Your task to perform on an android device: What's the weather today? Image 0: 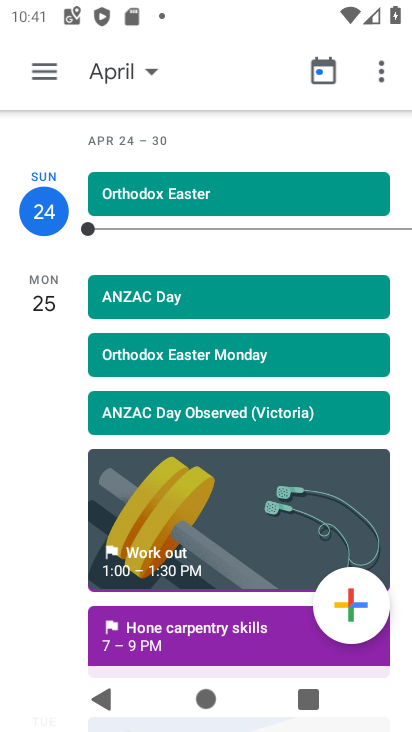
Step 0: press home button
Your task to perform on an android device: What's the weather today? Image 1: 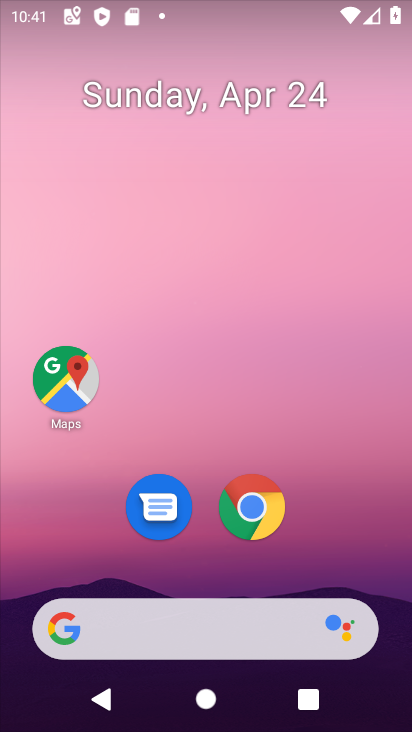
Step 1: drag from (37, 199) to (411, 173)
Your task to perform on an android device: What's the weather today? Image 2: 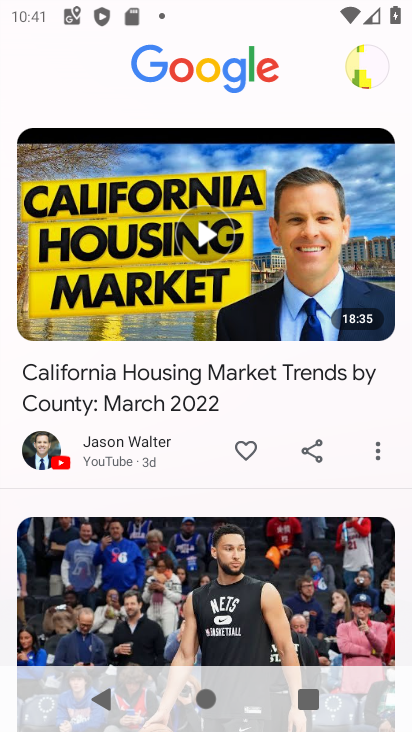
Step 2: drag from (397, 381) to (98, 399)
Your task to perform on an android device: What's the weather today? Image 3: 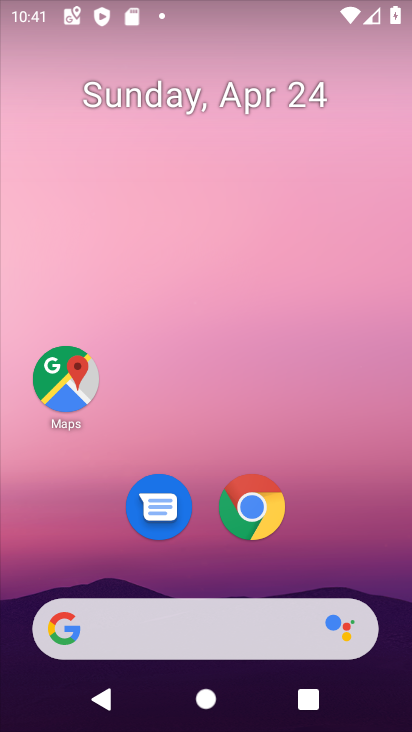
Step 3: click (236, 634)
Your task to perform on an android device: What's the weather today? Image 4: 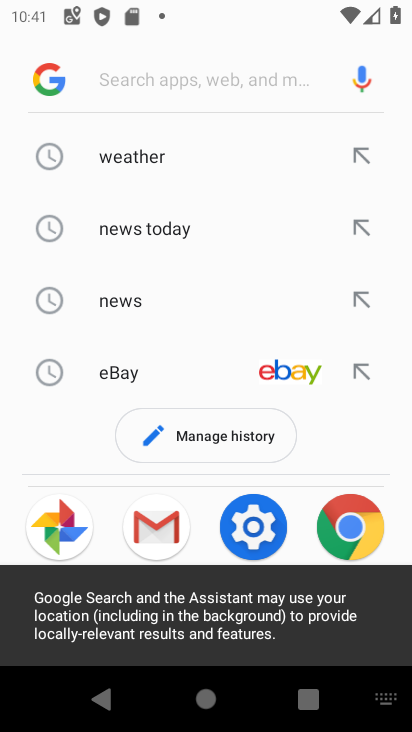
Step 4: click (175, 147)
Your task to perform on an android device: What's the weather today? Image 5: 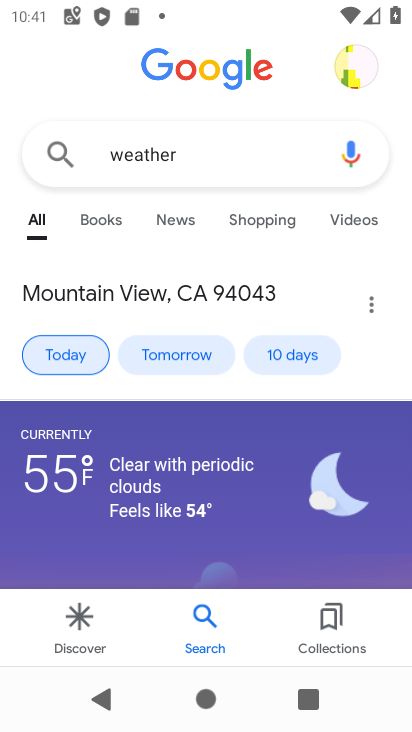
Step 5: task complete